Your task to perform on an android device: check google app version Image 0: 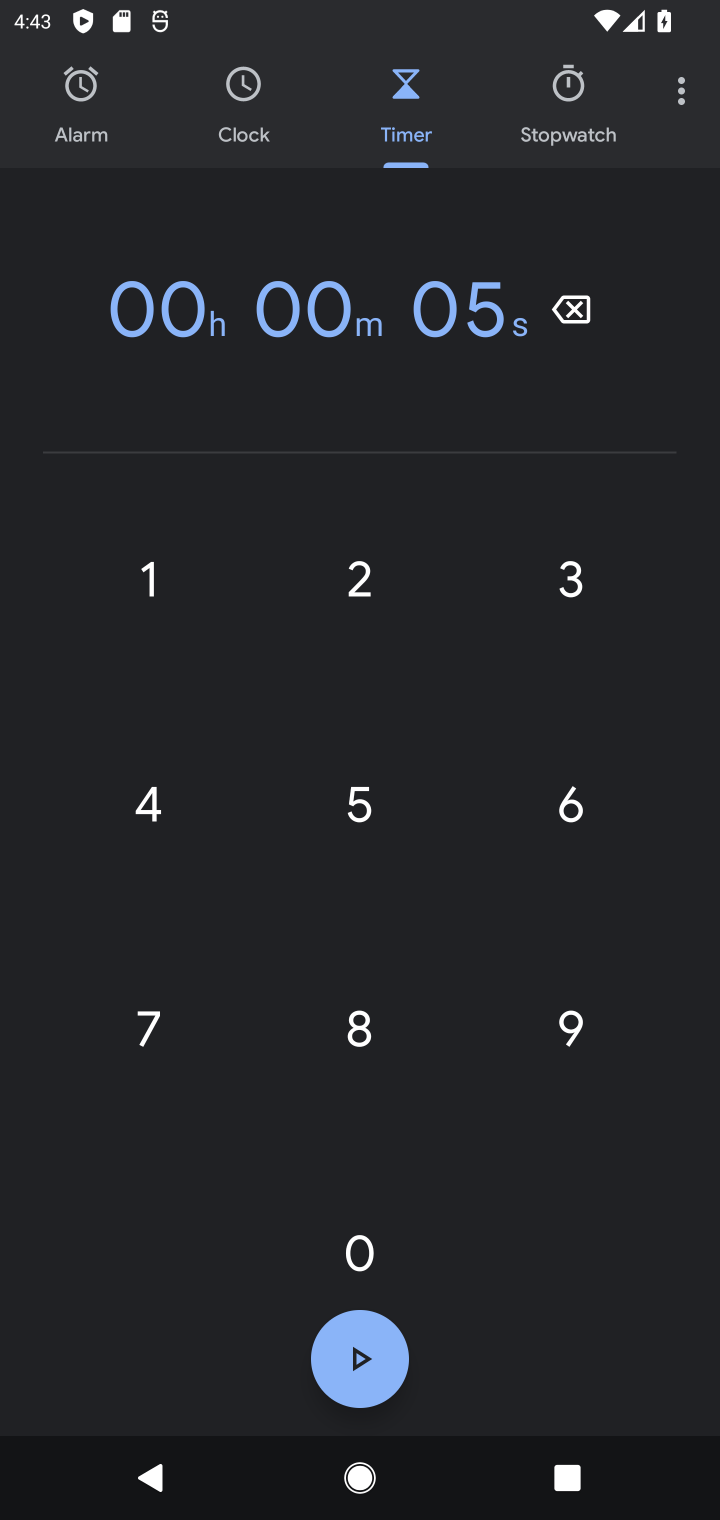
Step 0: press home button
Your task to perform on an android device: check google app version Image 1: 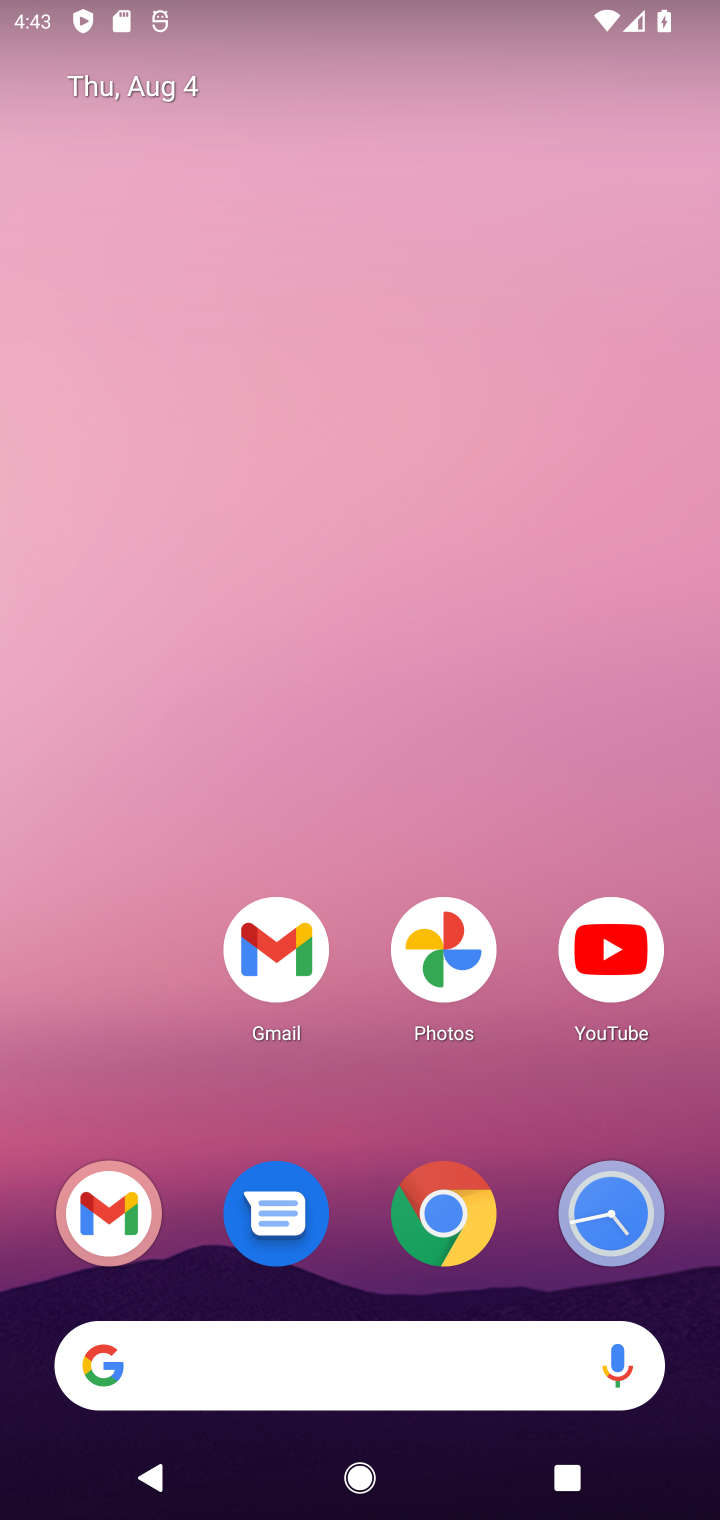
Step 1: drag from (68, 949) to (110, 286)
Your task to perform on an android device: check google app version Image 2: 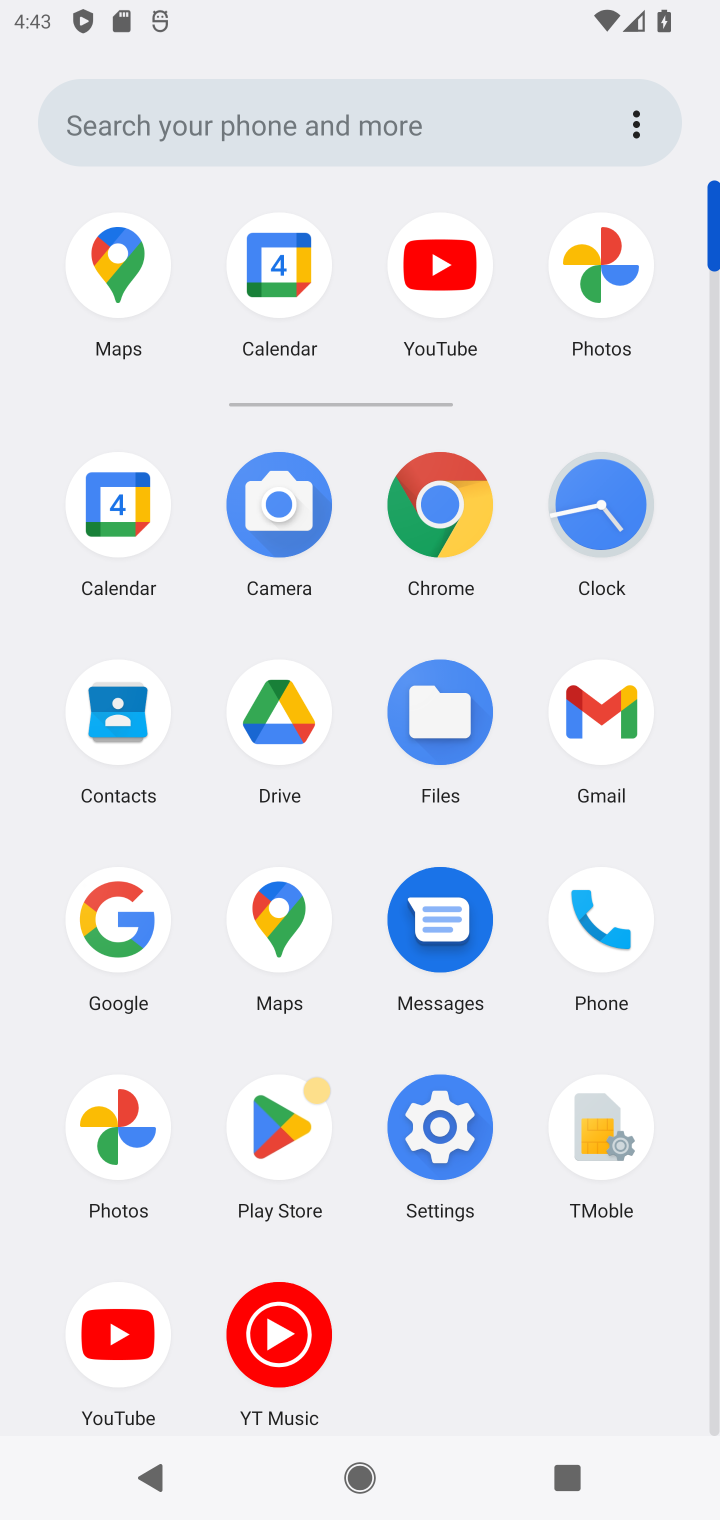
Step 2: click (130, 929)
Your task to perform on an android device: check google app version Image 3: 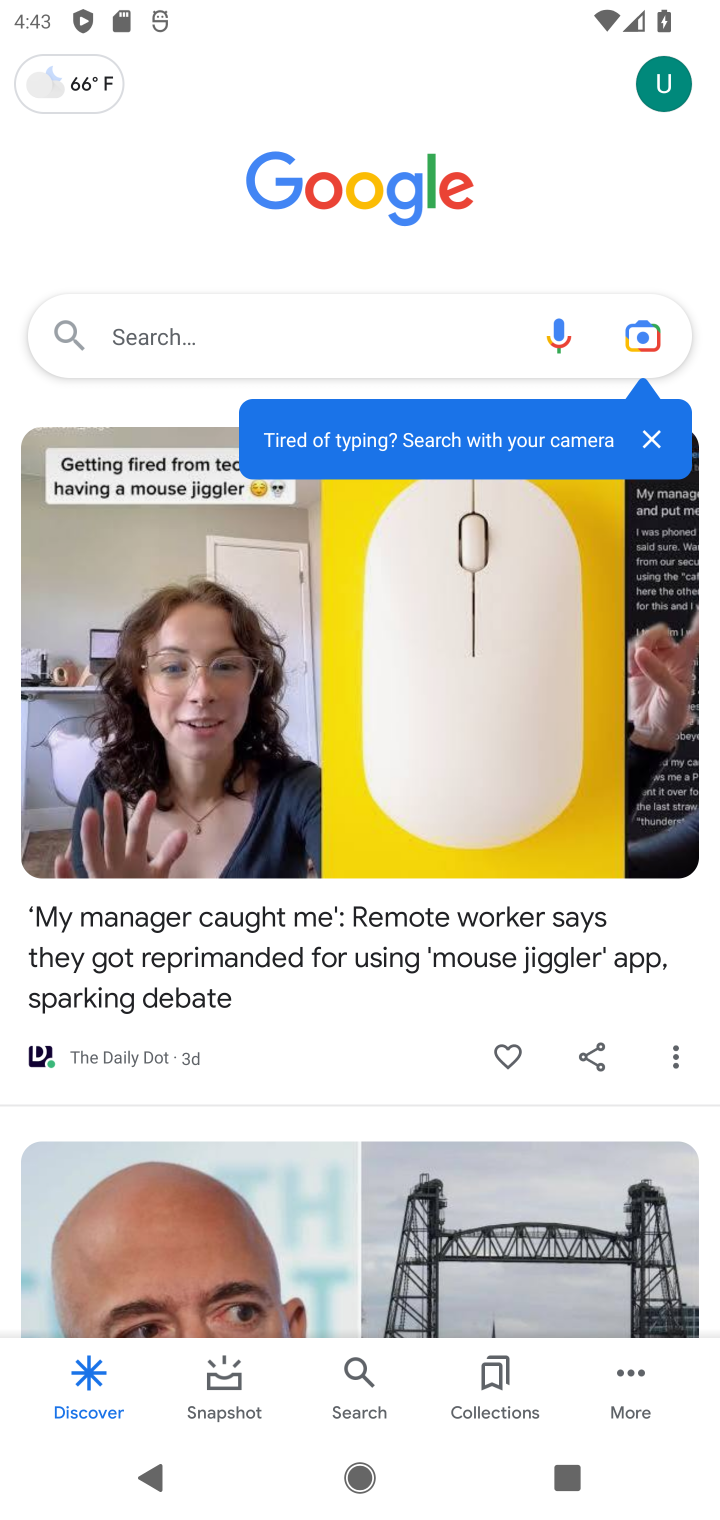
Step 3: click (629, 1382)
Your task to perform on an android device: check google app version Image 4: 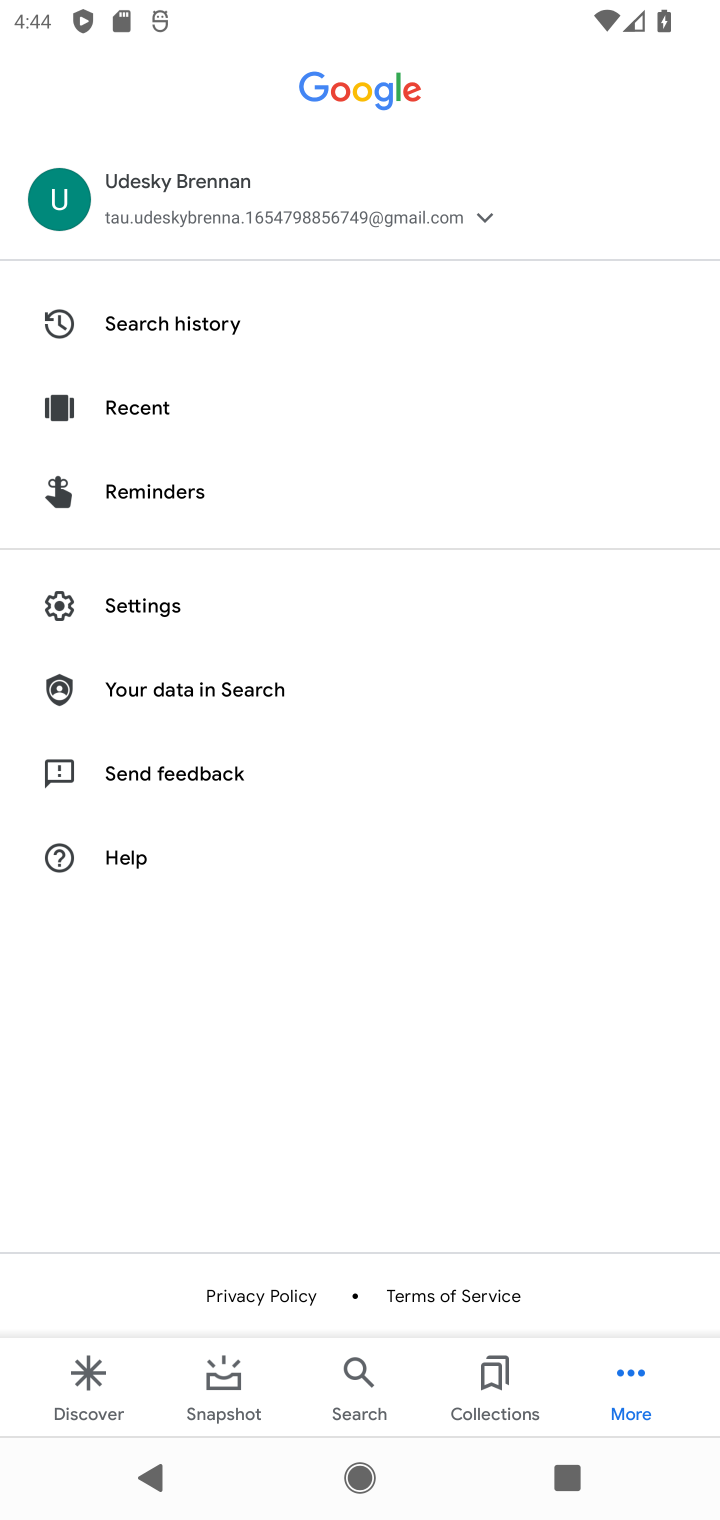
Step 4: click (180, 599)
Your task to perform on an android device: check google app version Image 5: 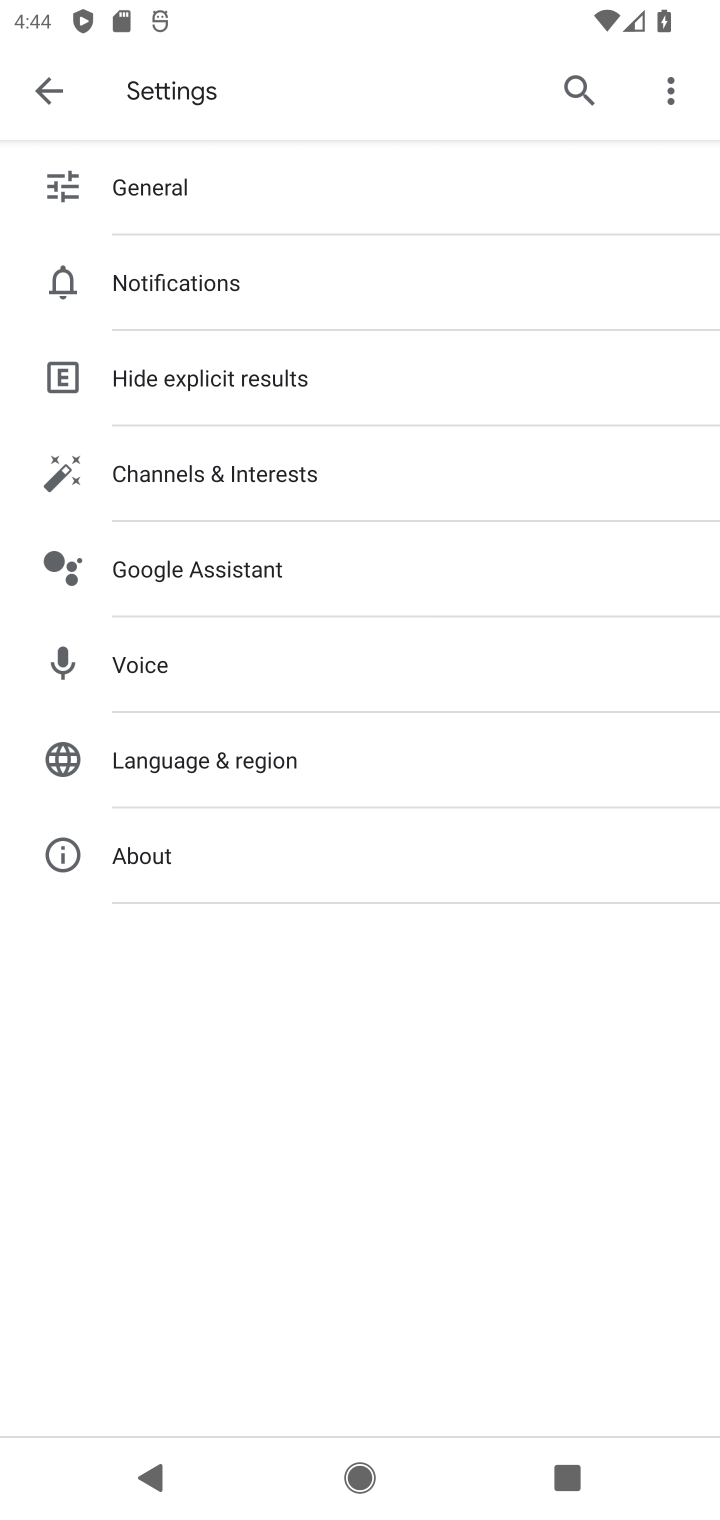
Step 5: click (190, 858)
Your task to perform on an android device: check google app version Image 6: 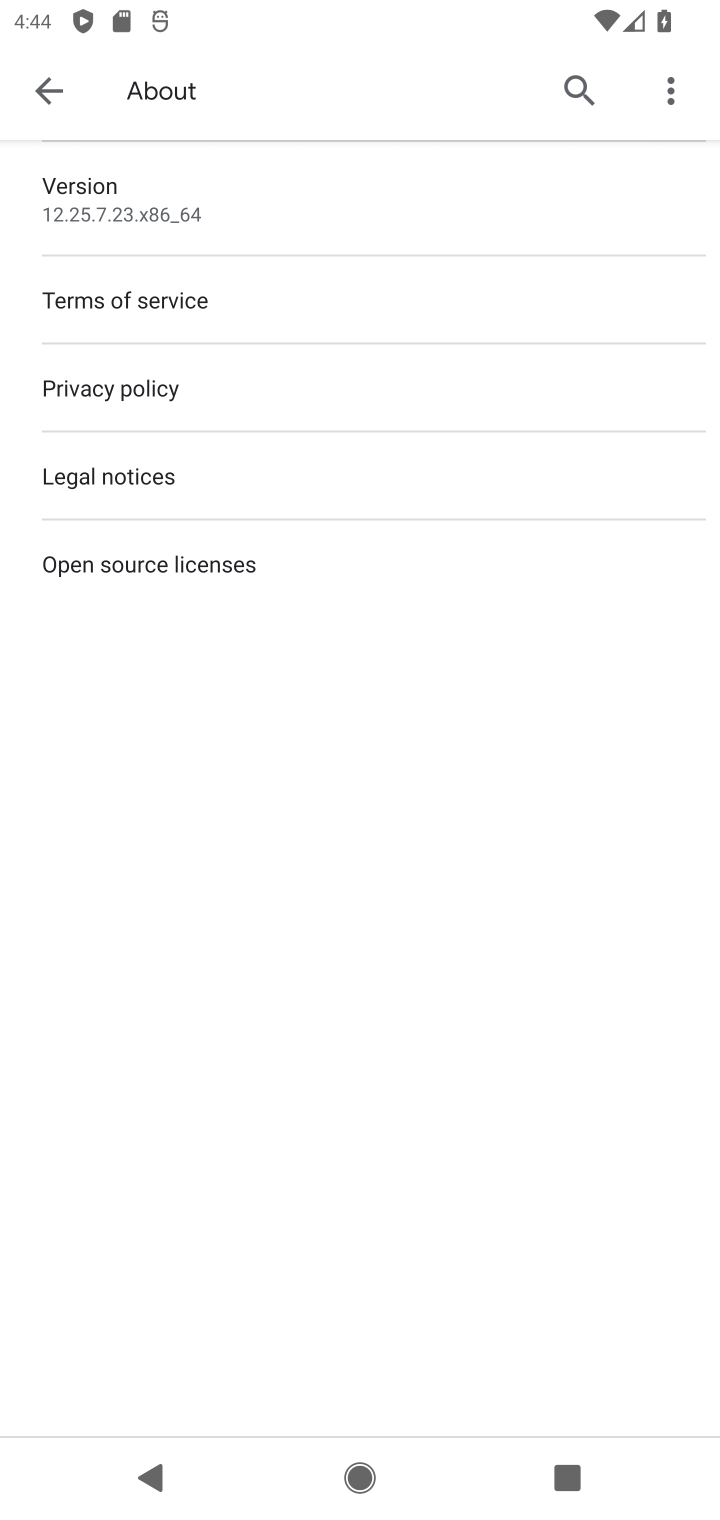
Step 6: task complete